Your task to perform on an android device: Open calendar and show me the third week of next month Image 0: 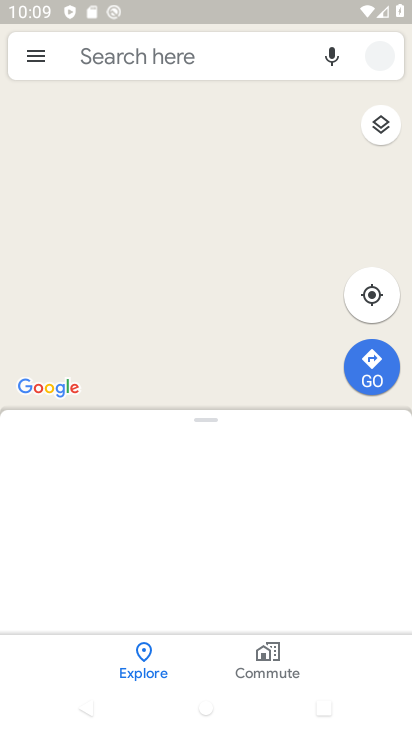
Step 0: press home button
Your task to perform on an android device: Open calendar and show me the third week of next month Image 1: 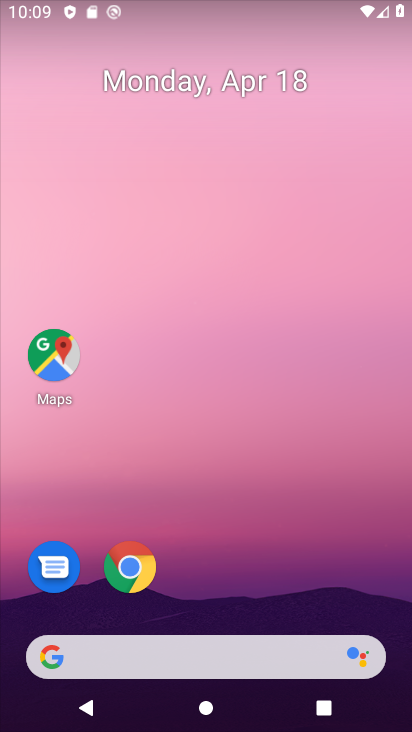
Step 1: drag from (233, 448) to (240, 76)
Your task to perform on an android device: Open calendar and show me the third week of next month Image 2: 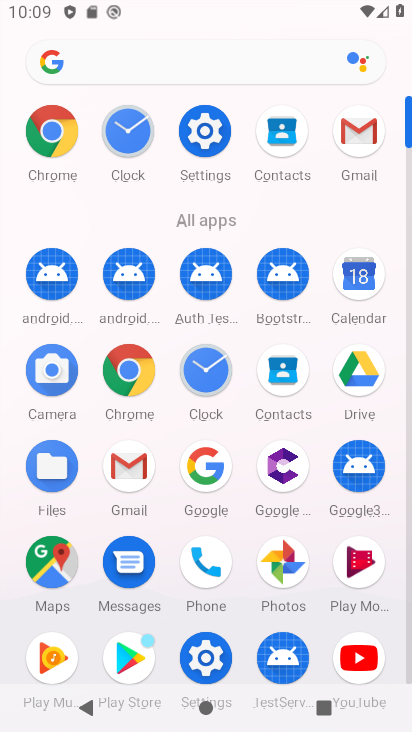
Step 2: click (361, 287)
Your task to perform on an android device: Open calendar and show me the third week of next month Image 3: 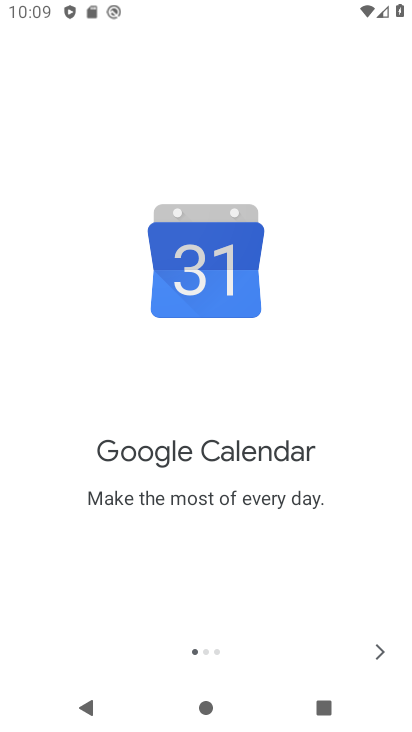
Step 3: click (378, 641)
Your task to perform on an android device: Open calendar and show me the third week of next month Image 4: 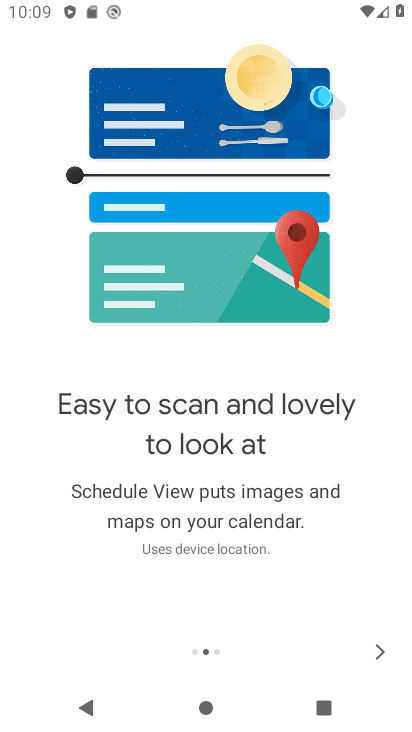
Step 4: click (382, 651)
Your task to perform on an android device: Open calendar and show me the third week of next month Image 5: 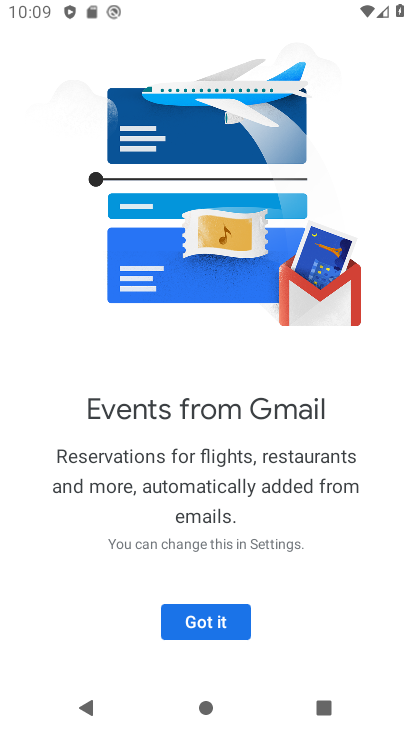
Step 5: click (180, 603)
Your task to perform on an android device: Open calendar and show me the third week of next month Image 6: 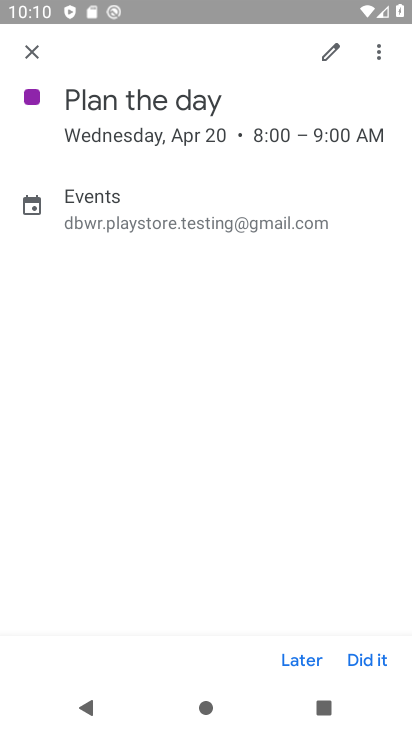
Step 6: press back button
Your task to perform on an android device: Open calendar and show me the third week of next month Image 7: 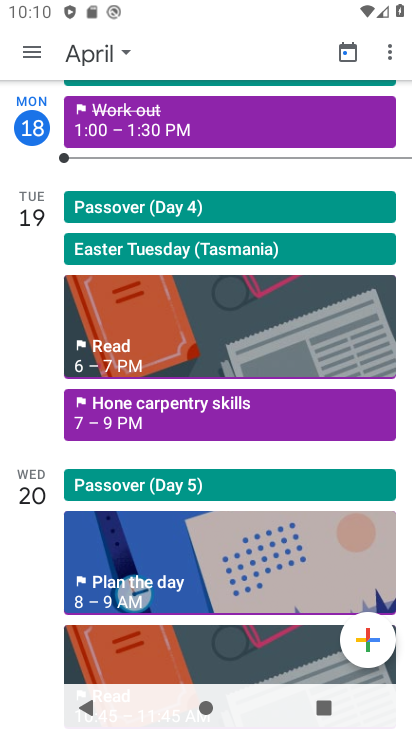
Step 7: click (37, 54)
Your task to perform on an android device: Open calendar and show me the third week of next month Image 8: 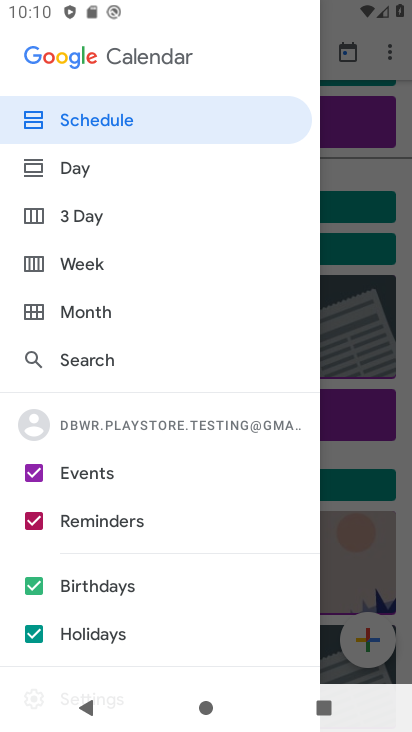
Step 8: click (62, 302)
Your task to perform on an android device: Open calendar and show me the third week of next month Image 9: 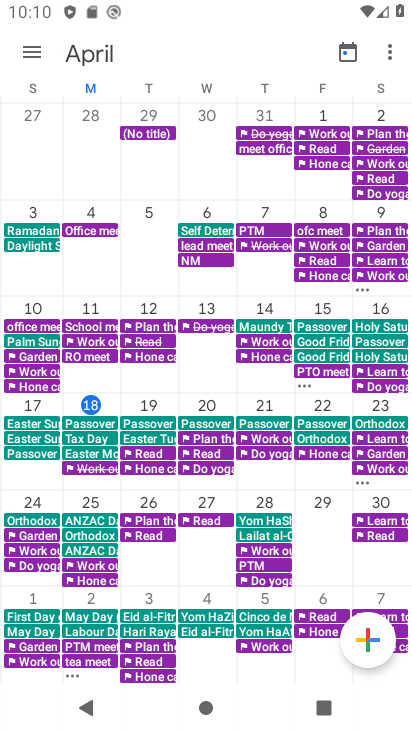
Step 9: task complete